Your task to perform on an android device: Open calendar and show me the first week of next month Image 0: 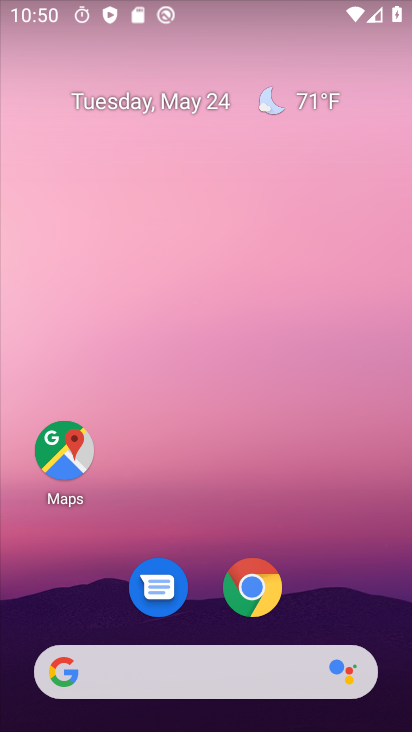
Step 0: drag from (372, 550) to (313, 237)
Your task to perform on an android device: Open calendar and show me the first week of next month Image 1: 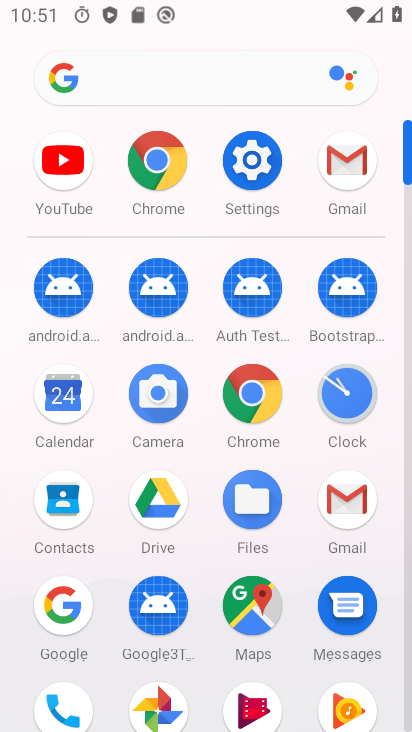
Step 1: click (55, 384)
Your task to perform on an android device: Open calendar and show me the first week of next month Image 2: 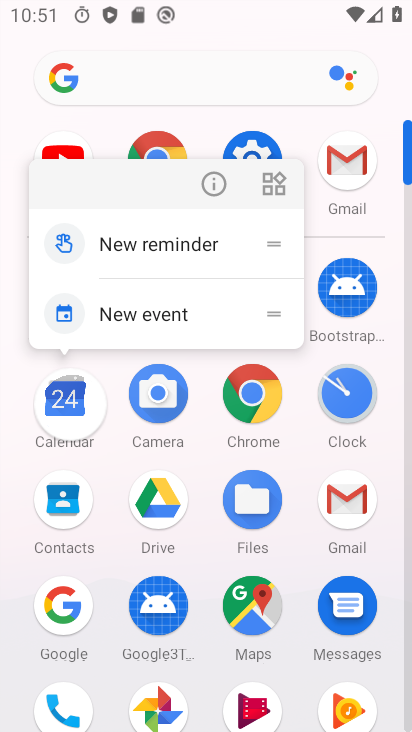
Step 2: click (62, 395)
Your task to perform on an android device: Open calendar and show me the first week of next month Image 3: 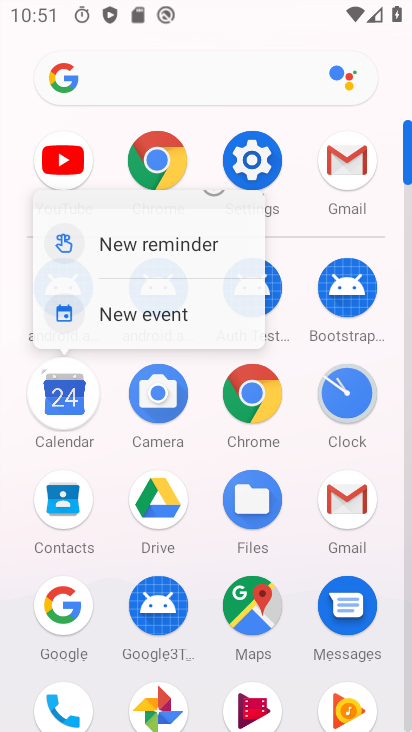
Step 3: click (62, 396)
Your task to perform on an android device: Open calendar and show me the first week of next month Image 4: 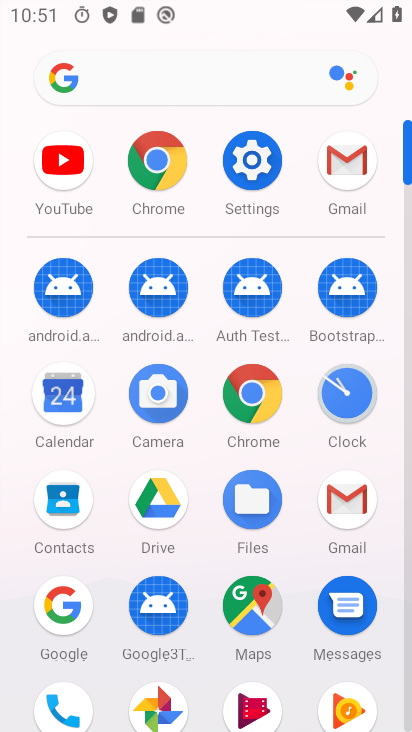
Step 4: click (66, 391)
Your task to perform on an android device: Open calendar and show me the first week of next month Image 5: 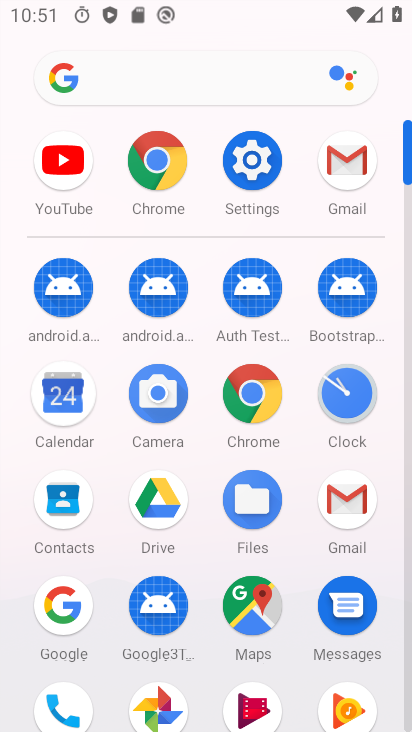
Step 5: click (68, 389)
Your task to perform on an android device: Open calendar and show me the first week of next month Image 6: 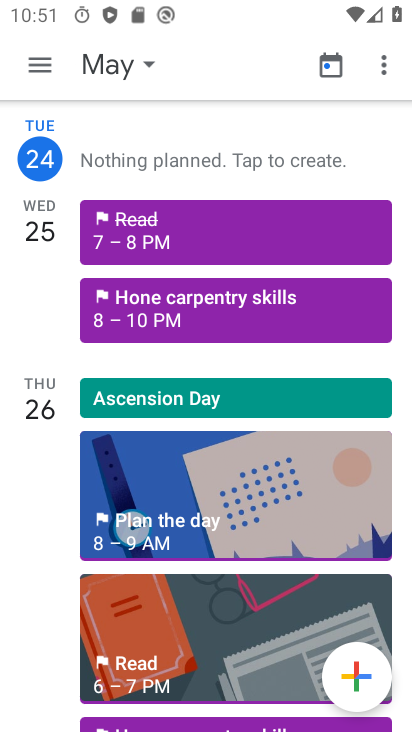
Step 6: task complete